Your task to perform on an android device: Show me recent news Image 0: 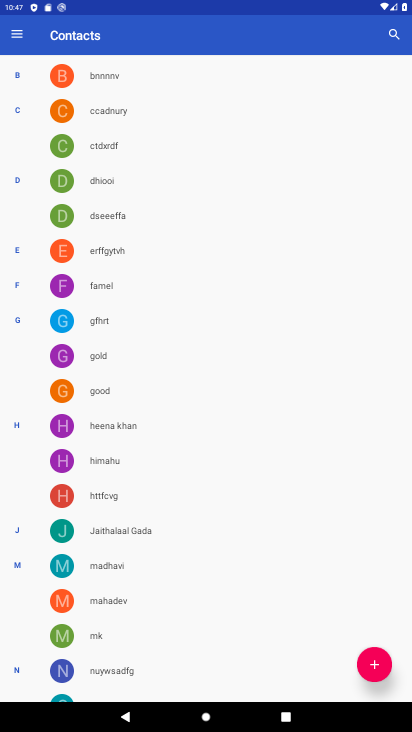
Step 0: press home button
Your task to perform on an android device: Show me recent news Image 1: 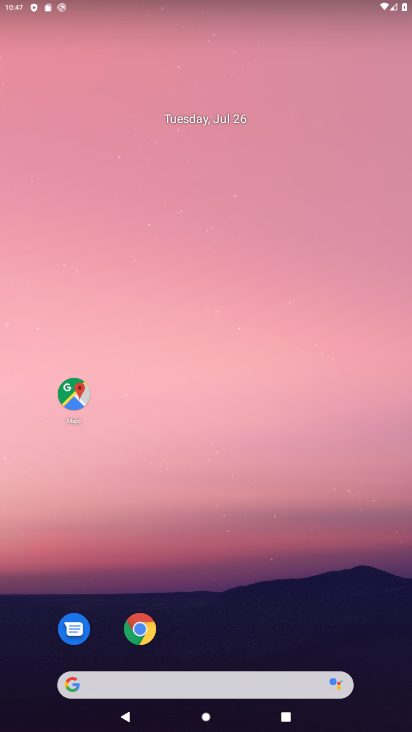
Step 1: click (149, 629)
Your task to perform on an android device: Show me recent news Image 2: 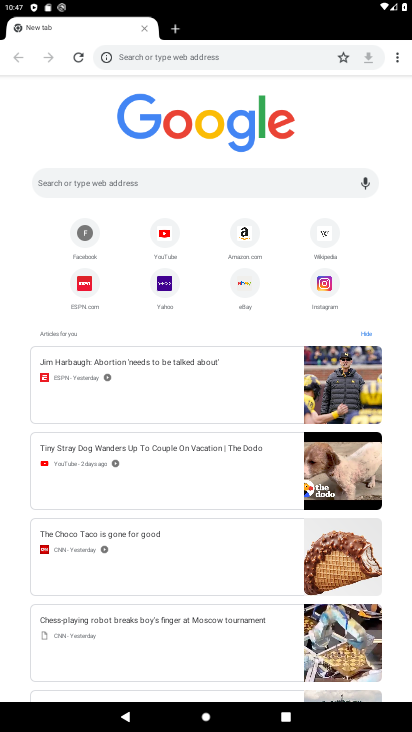
Step 2: click (170, 50)
Your task to perform on an android device: Show me recent news Image 3: 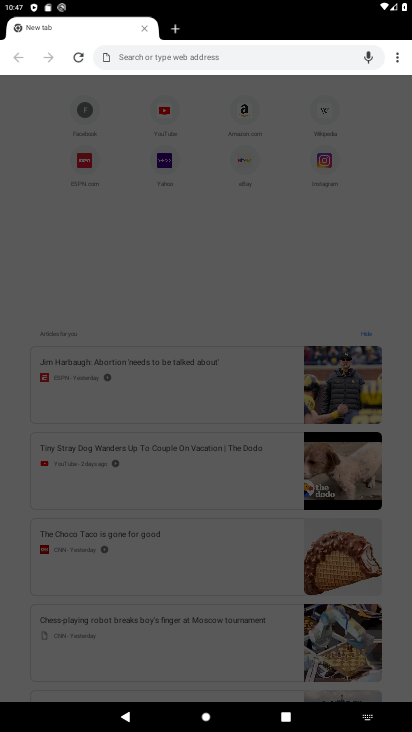
Step 3: type "Show me recent news"
Your task to perform on an android device: Show me recent news Image 4: 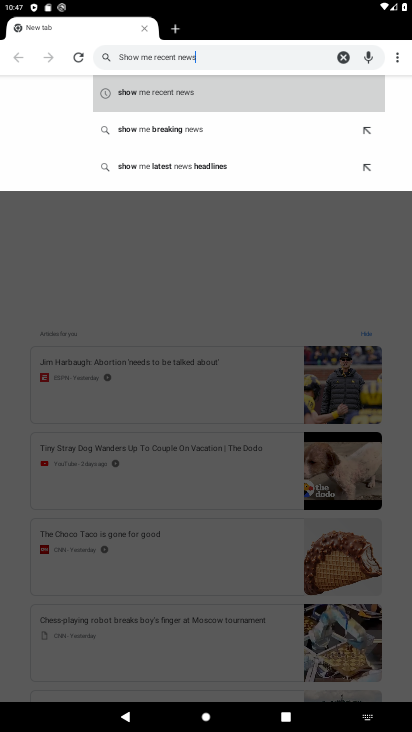
Step 4: click (153, 90)
Your task to perform on an android device: Show me recent news Image 5: 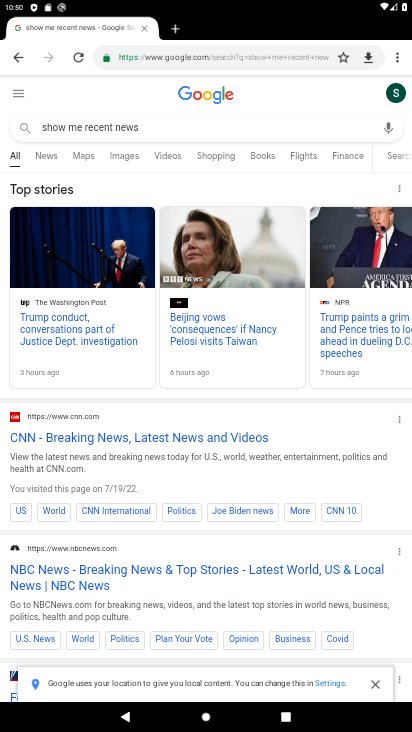
Step 5: task complete